Your task to perform on an android device: Open Google Chrome and click the shortcut for Amazon.com Image 0: 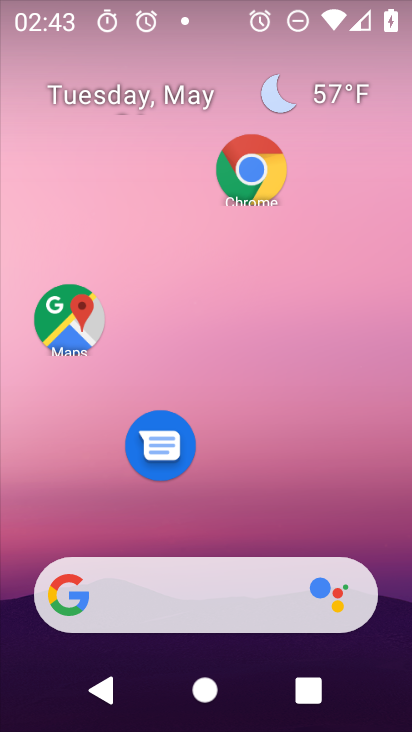
Step 0: click (252, 178)
Your task to perform on an android device: Open Google Chrome and click the shortcut for Amazon.com Image 1: 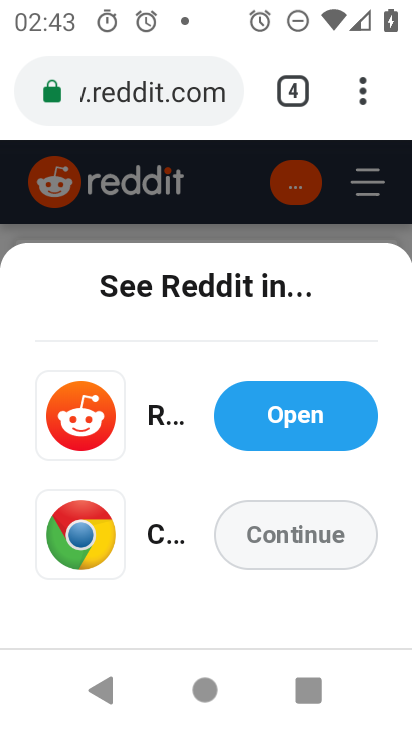
Step 1: click (365, 103)
Your task to perform on an android device: Open Google Chrome and click the shortcut for Amazon.com Image 2: 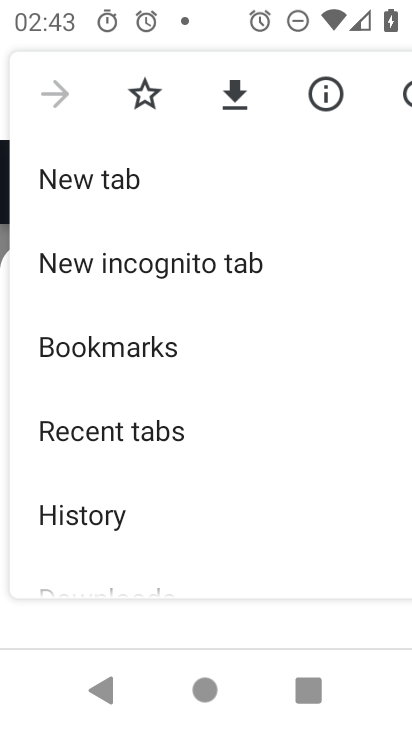
Step 2: click (91, 183)
Your task to perform on an android device: Open Google Chrome and click the shortcut for Amazon.com Image 3: 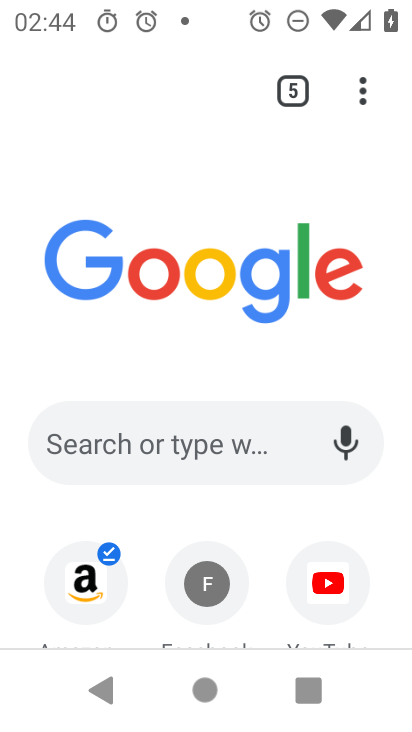
Step 3: click (78, 581)
Your task to perform on an android device: Open Google Chrome and click the shortcut for Amazon.com Image 4: 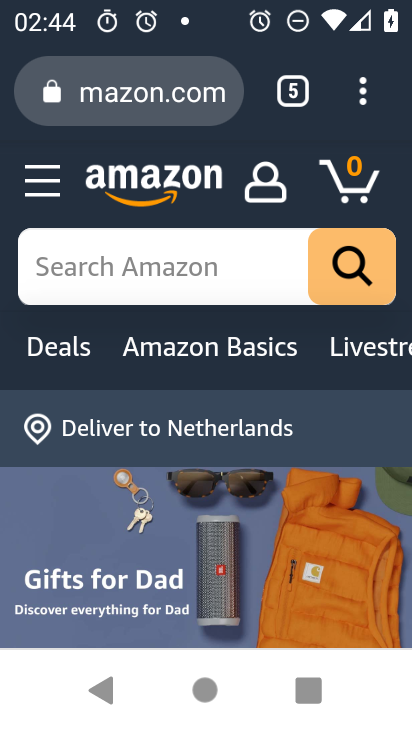
Step 4: task complete